Your task to perform on an android device: turn on priority inbox in the gmail app Image 0: 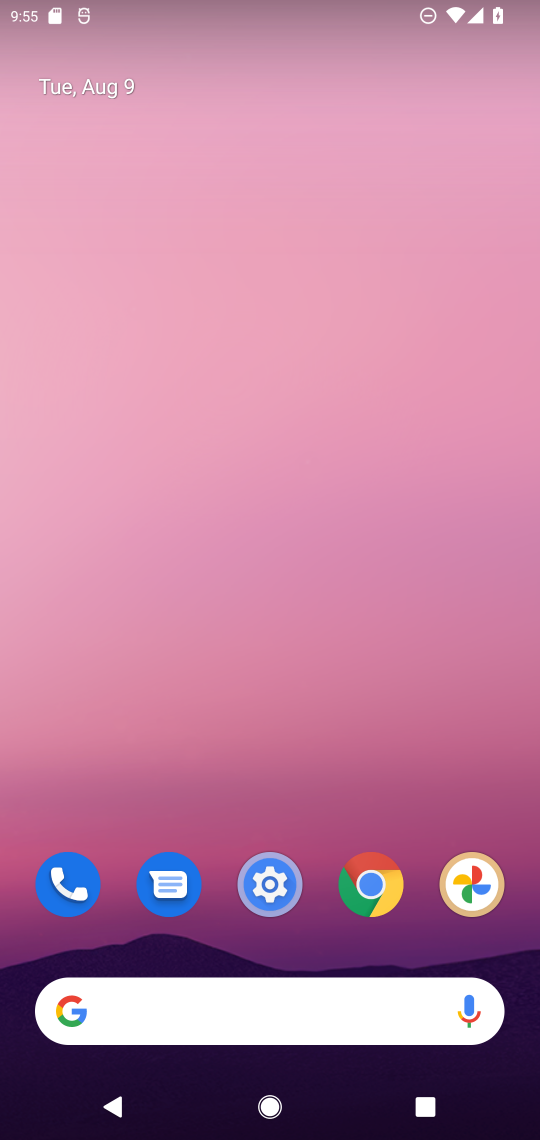
Step 0: drag from (257, 1019) to (271, 64)
Your task to perform on an android device: turn on priority inbox in the gmail app Image 1: 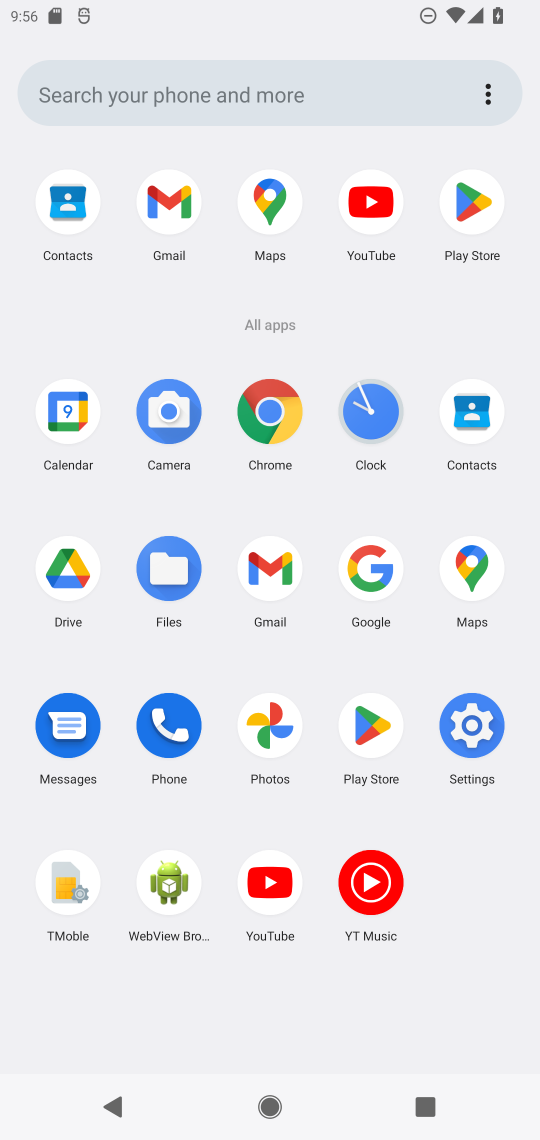
Step 1: click (169, 203)
Your task to perform on an android device: turn on priority inbox in the gmail app Image 2: 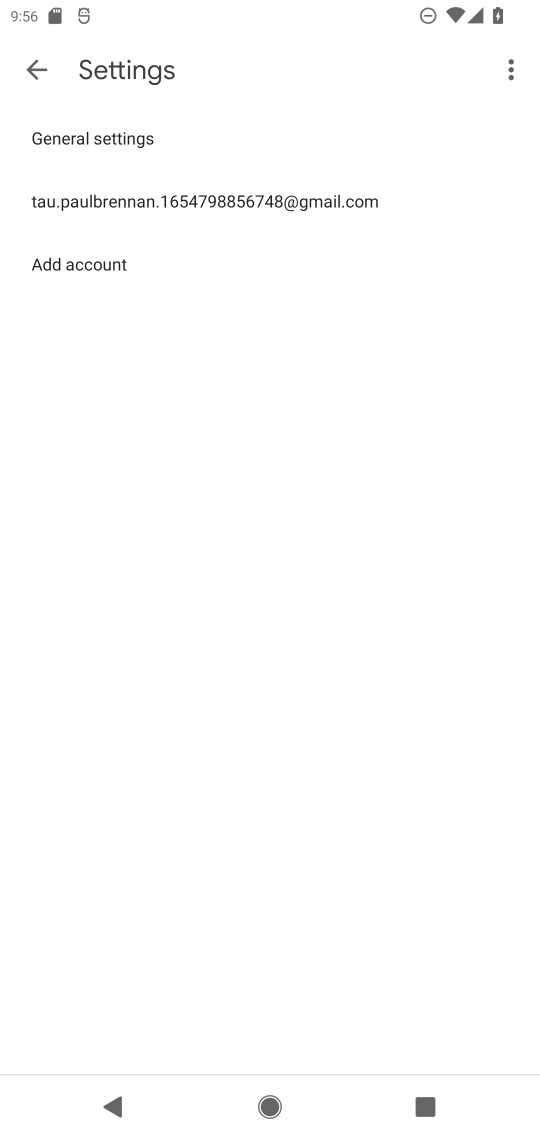
Step 2: click (169, 203)
Your task to perform on an android device: turn on priority inbox in the gmail app Image 3: 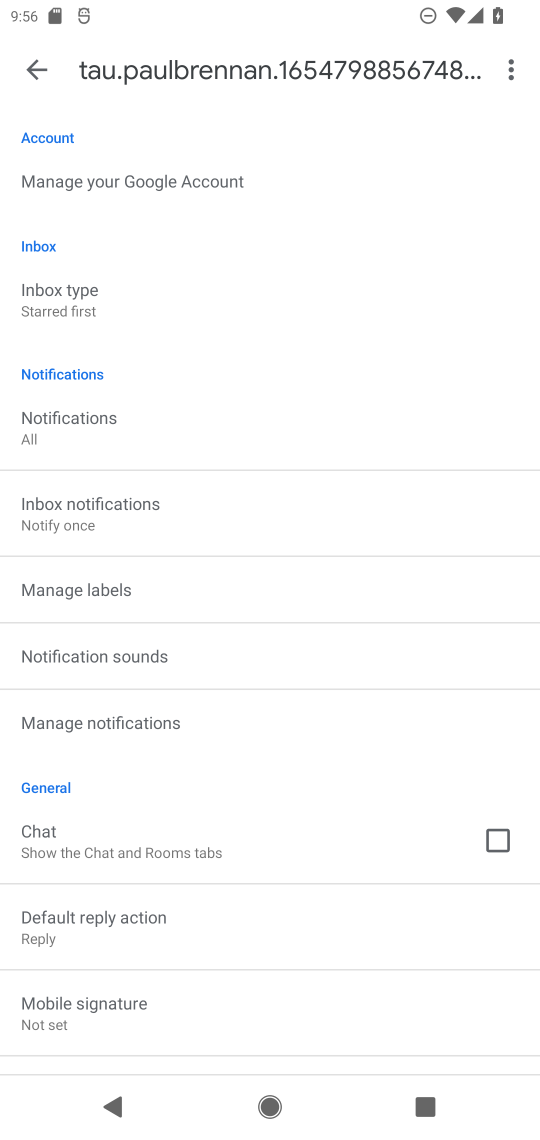
Step 3: click (87, 301)
Your task to perform on an android device: turn on priority inbox in the gmail app Image 4: 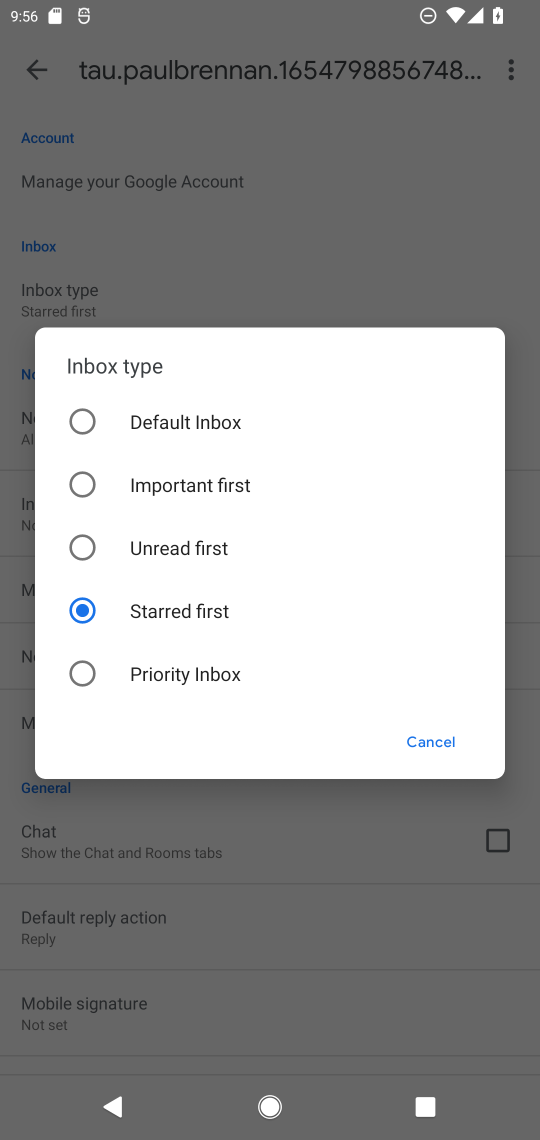
Step 4: click (83, 671)
Your task to perform on an android device: turn on priority inbox in the gmail app Image 5: 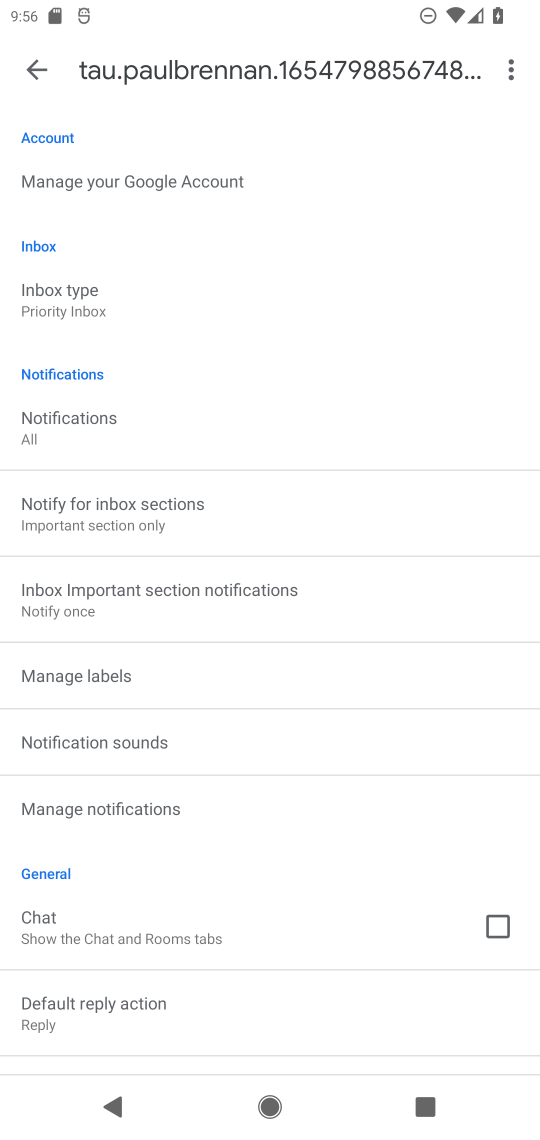
Step 5: task complete